Your task to perform on an android device: turn off data saver in the chrome app Image 0: 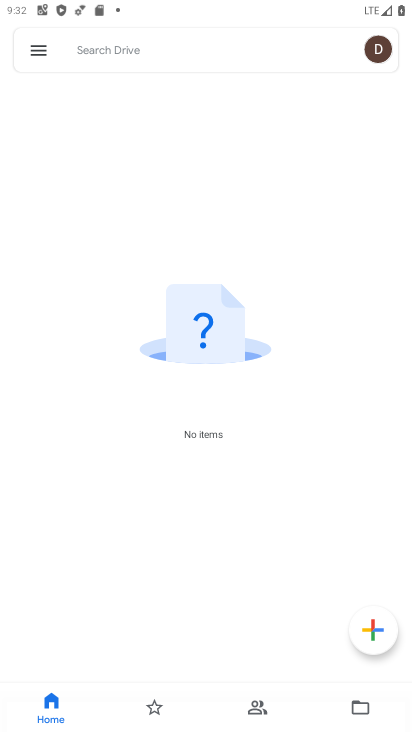
Step 0: press home button
Your task to perform on an android device: turn off data saver in the chrome app Image 1: 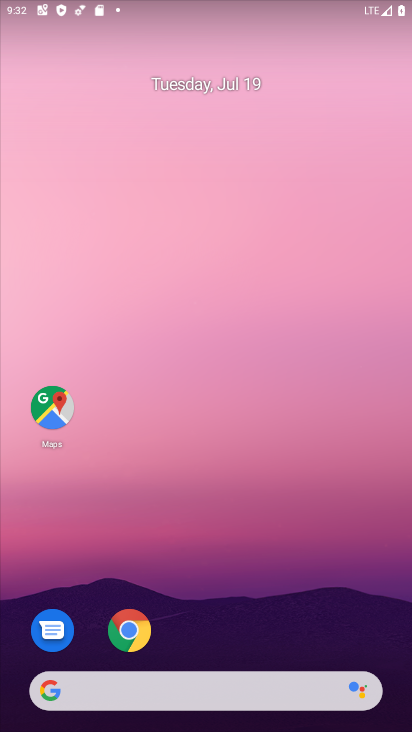
Step 1: drag from (222, 670) to (265, 257)
Your task to perform on an android device: turn off data saver in the chrome app Image 2: 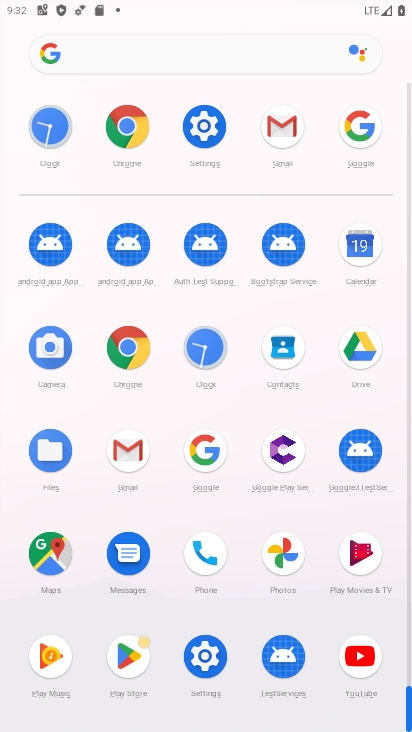
Step 2: click (132, 372)
Your task to perform on an android device: turn off data saver in the chrome app Image 3: 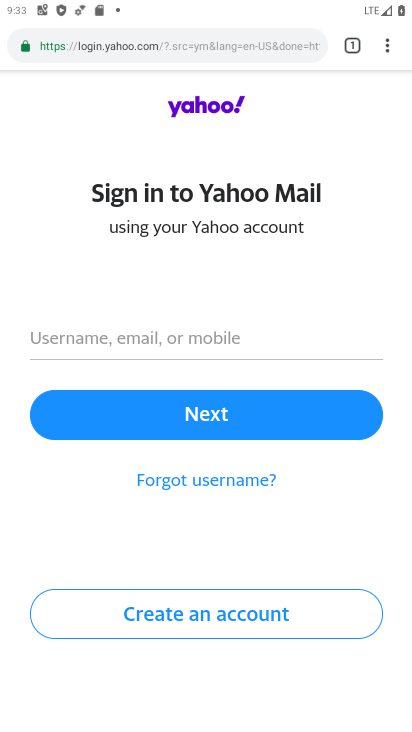
Step 3: click (389, 50)
Your task to perform on an android device: turn off data saver in the chrome app Image 4: 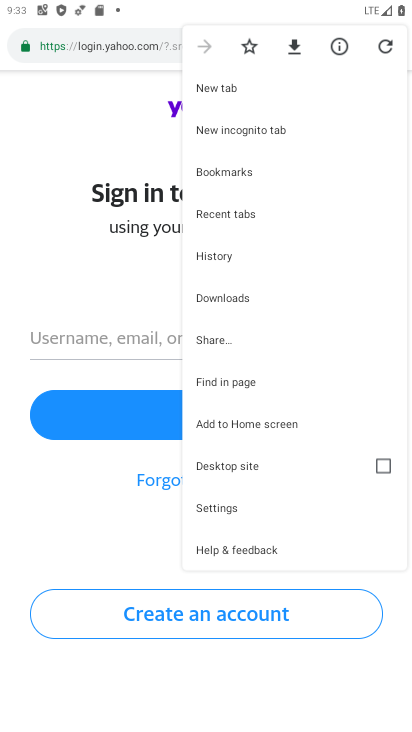
Step 4: click (220, 514)
Your task to perform on an android device: turn off data saver in the chrome app Image 5: 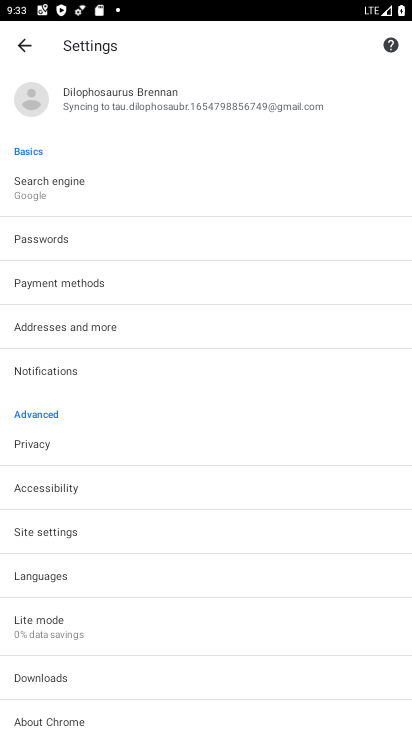
Step 5: click (143, 432)
Your task to perform on an android device: turn off data saver in the chrome app Image 6: 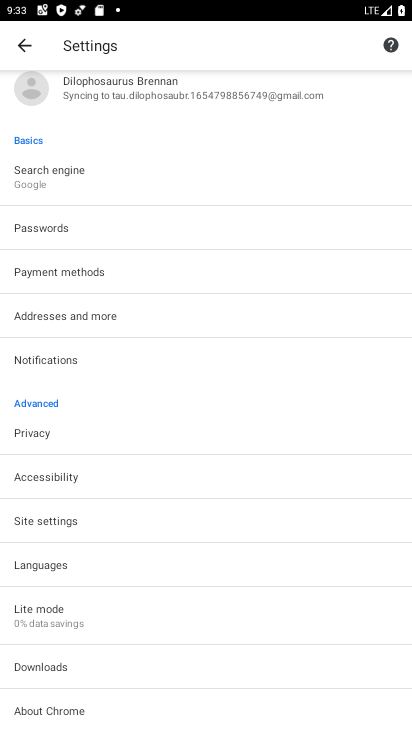
Step 6: click (55, 620)
Your task to perform on an android device: turn off data saver in the chrome app Image 7: 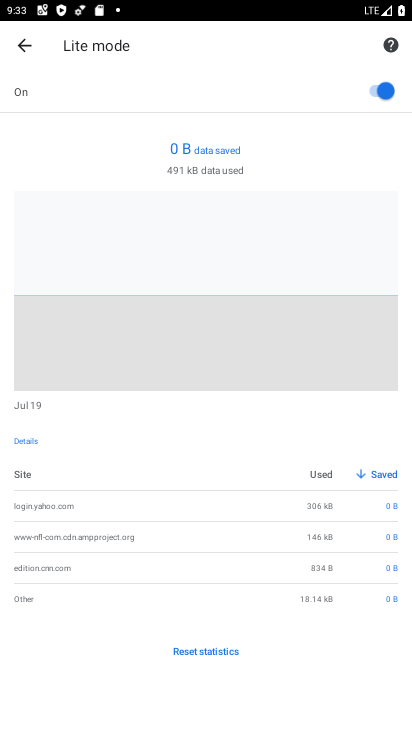
Step 7: click (375, 97)
Your task to perform on an android device: turn off data saver in the chrome app Image 8: 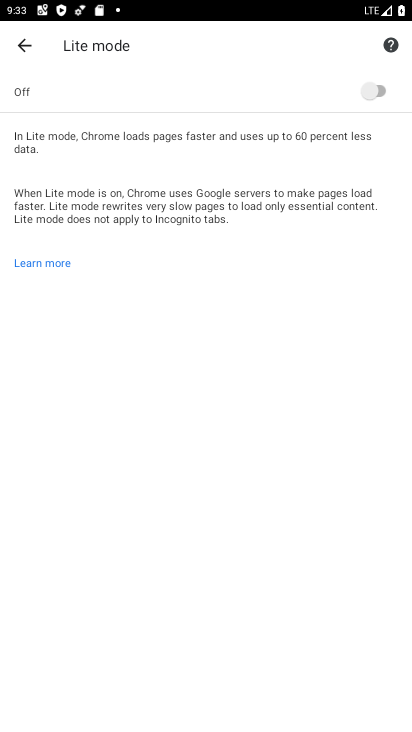
Step 8: task complete